Your task to perform on an android device: change the clock style Image 0: 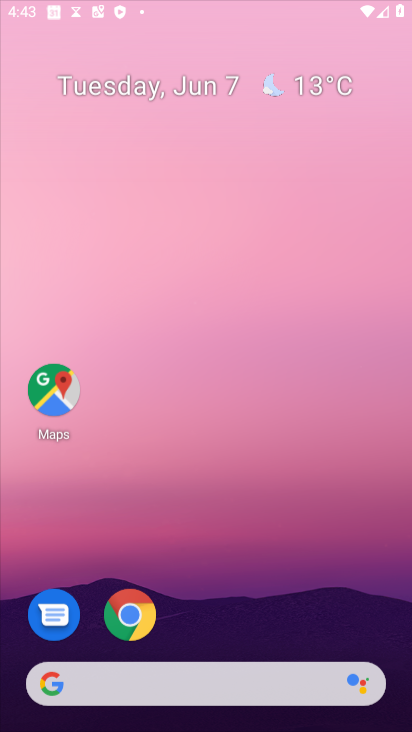
Step 0: drag from (205, 650) to (174, 91)
Your task to perform on an android device: change the clock style Image 1: 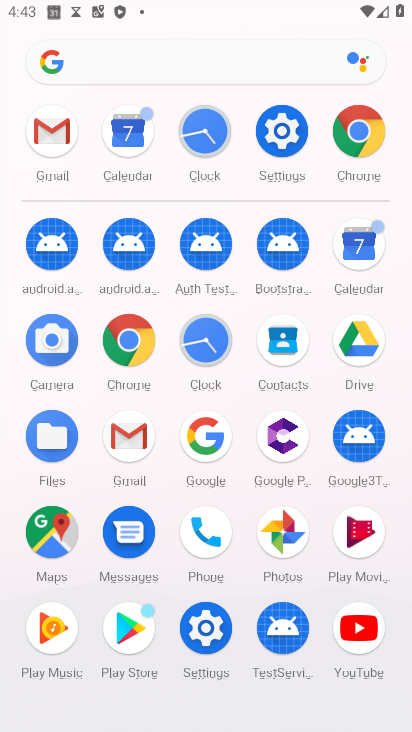
Step 1: click (191, 339)
Your task to perform on an android device: change the clock style Image 2: 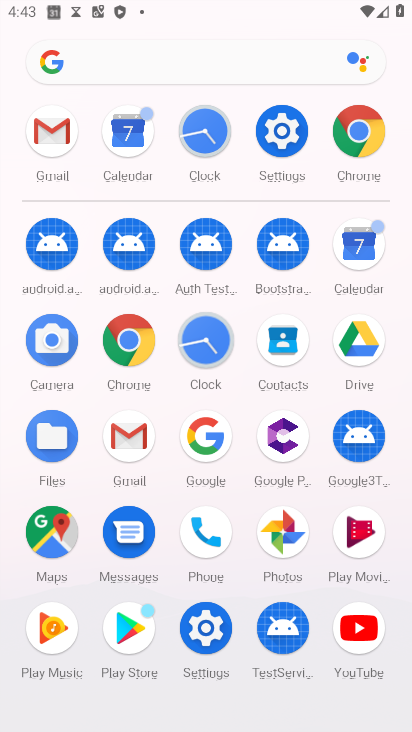
Step 2: click (194, 341)
Your task to perform on an android device: change the clock style Image 3: 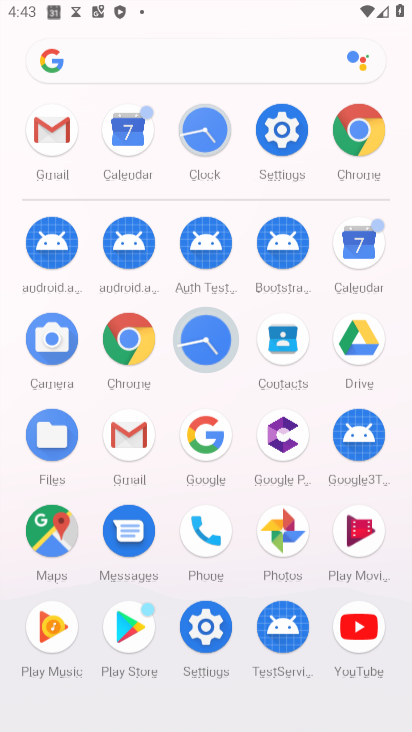
Step 3: click (194, 341)
Your task to perform on an android device: change the clock style Image 4: 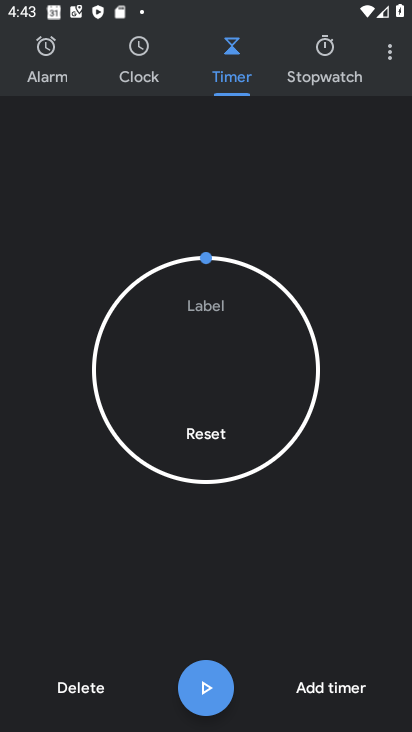
Step 4: click (158, 64)
Your task to perform on an android device: change the clock style Image 5: 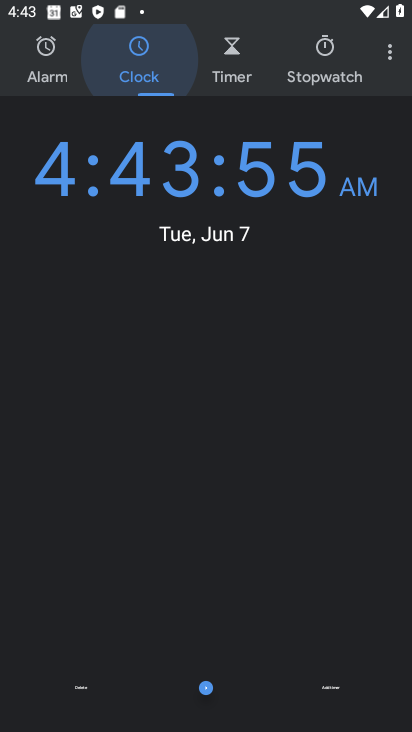
Step 5: click (136, 60)
Your task to perform on an android device: change the clock style Image 6: 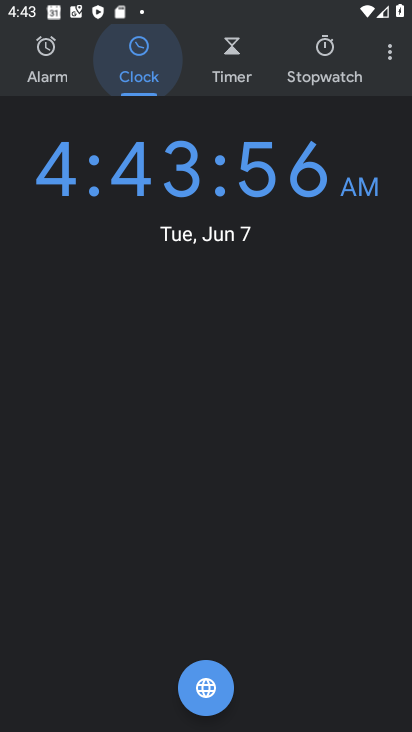
Step 6: click (136, 60)
Your task to perform on an android device: change the clock style Image 7: 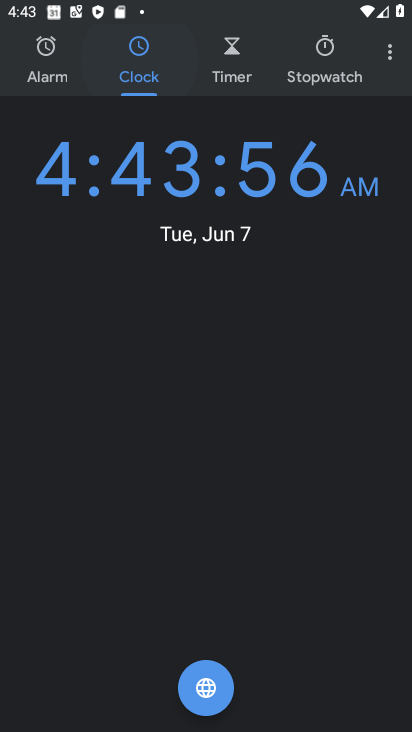
Step 7: click (141, 60)
Your task to perform on an android device: change the clock style Image 8: 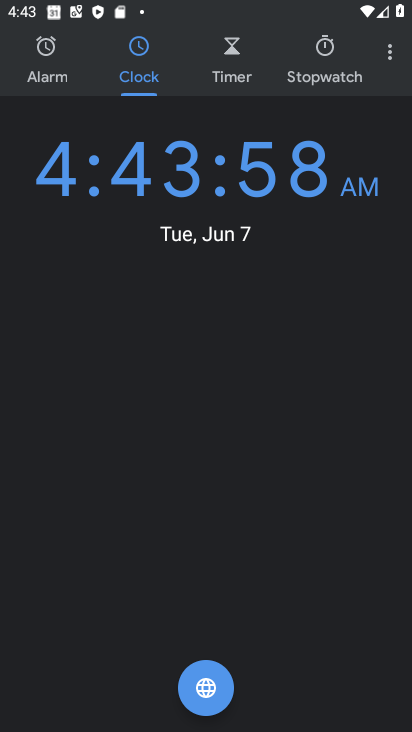
Step 8: click (391, 50)
Your task to perform on an android device: change the clock style Image 9: 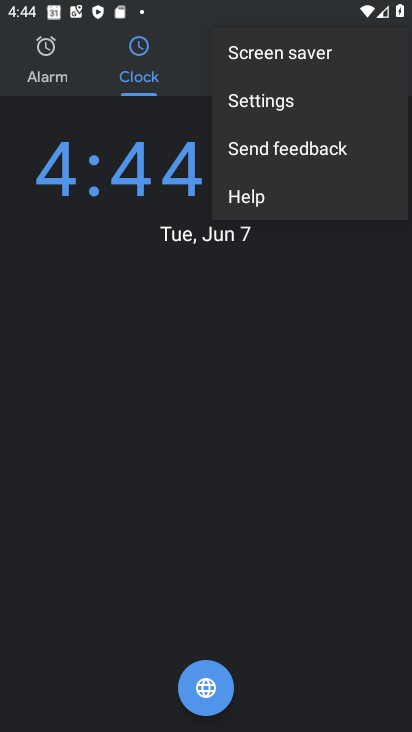
Step 9: click (277, 107)
Your task to perform on an android device: change the clock style Image 10: 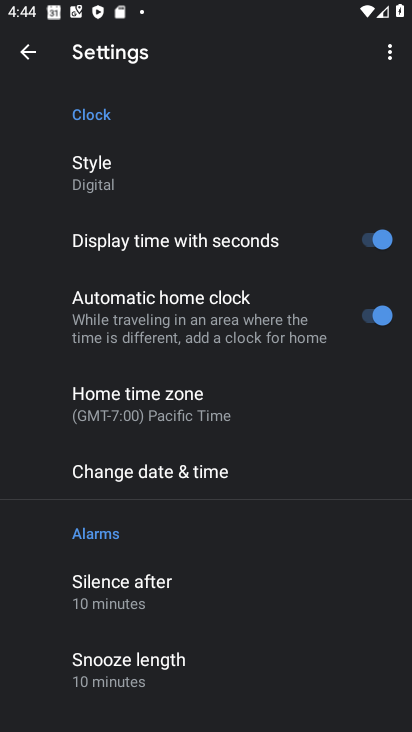
Step 10: click (161, 184)
Your task to perform on an android device: change the clock style Image 11: 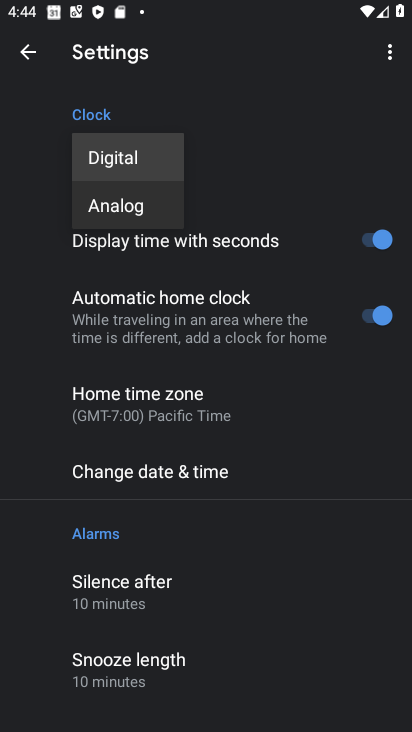
Step 11: click (147, 204)
Your task to perform on an android device: change the clock style Image 12: 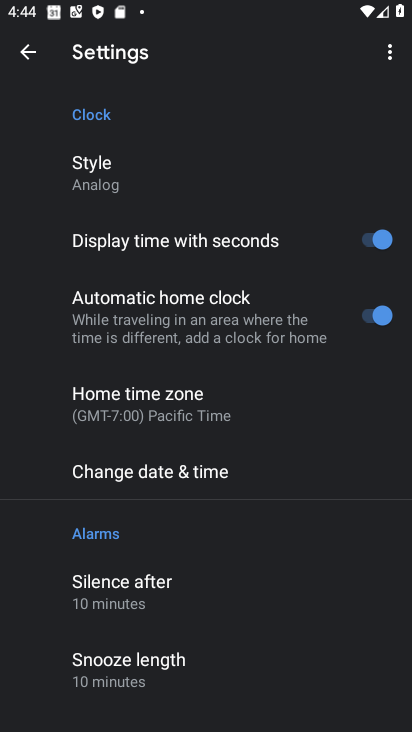
Step 12: task complete